Your task to perform on an android device: Clear the shopping cart on bestbuy.com. Image 0: 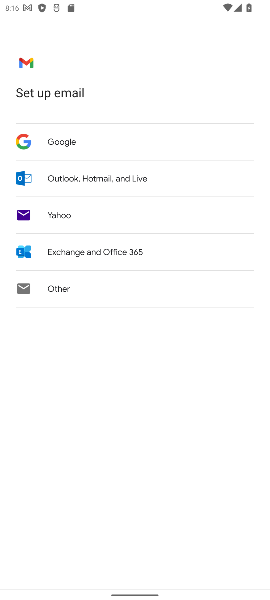
Step 0: press home button
Your task to perform on an android device: Clear the shopping cart on bestbuy.com. Image 1: 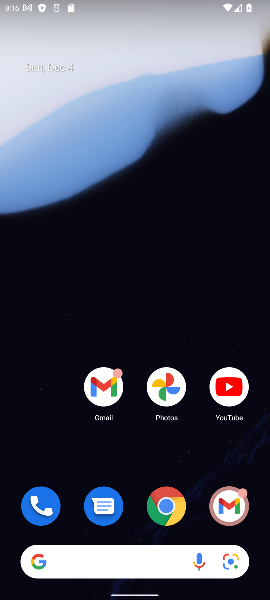
Step 1: click (170, 509)
Your task to perform on an android device: Clear the shopping cart on bestbuy.com. Image 2: 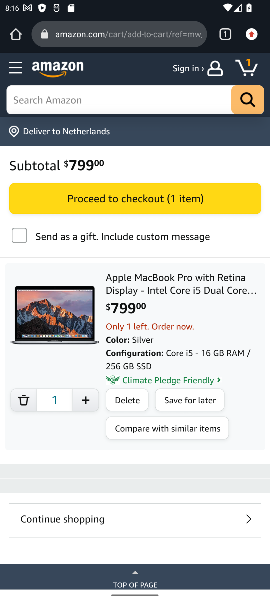
Step 2: click (135, 34)
Your task to perform on an android device: Clear the shopping cart on bestbuy.com. Image 3: 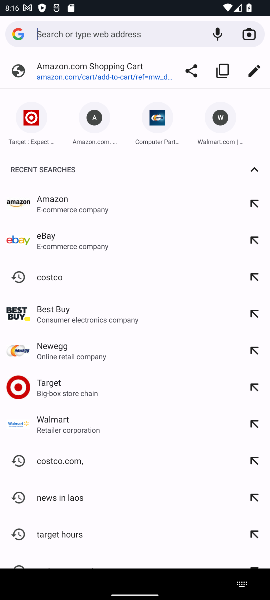
Step 3: click (115, 322)
Your task to perform on an android device: Clear the shopping cart on bestbuy.com. Image 4: 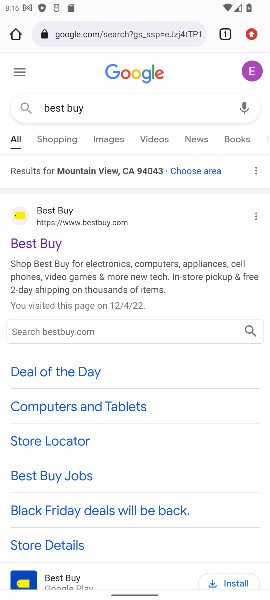
Step 4: click (61, 250)
Your task to perform on an android device: Clear the shopping cart on bestbuy.com. Image 5: 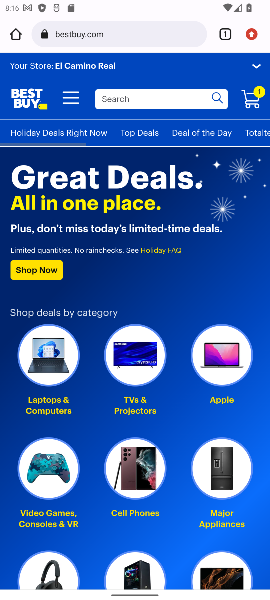
Step 5: click (255, 97)
Your task to perform on an android device: Clear the shopping cart on bestbuy.com. Image 6: 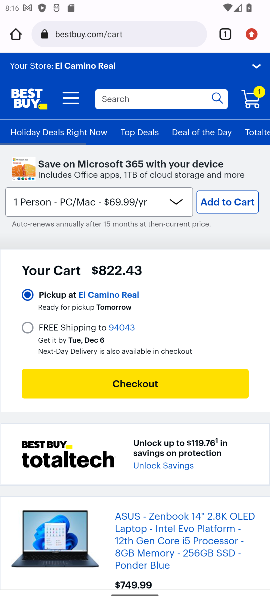
Step 6: drag from (116, 452) to (147, 203)
Your task to perform on an android device: Clear the shopping cart on bestbuy.com. Image 7: 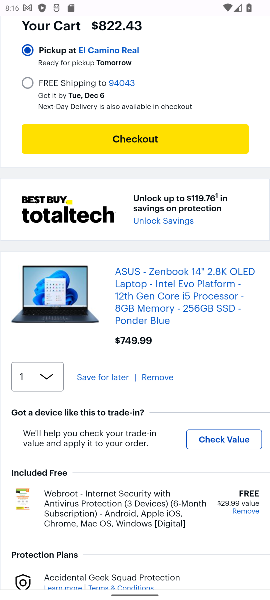
Step 7: click (158, 375)
Your task to perform on an android device: Clear the shopping cart on bestbuy.com. Image 8: 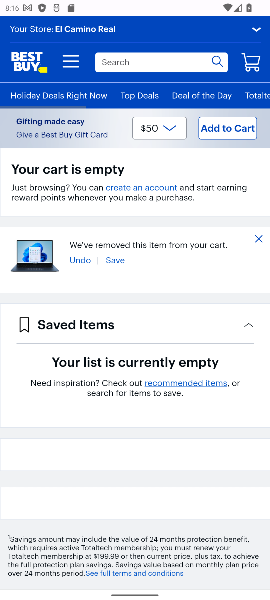
Step 8: task complete